Your task to perform on an android device: Show me recent news Image 0: 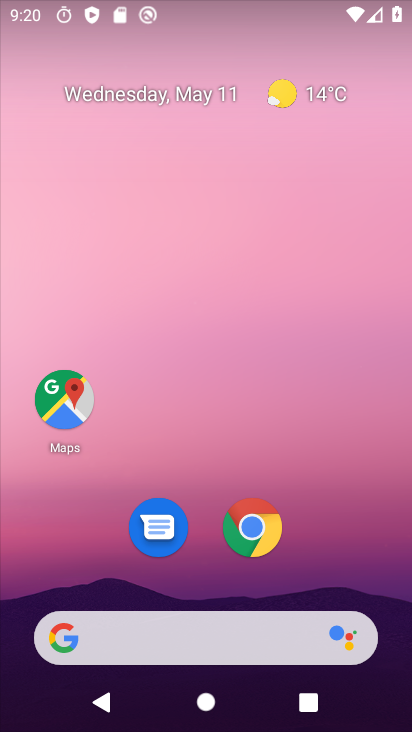
Step 0: drag from (234, 525) to (240, 211)
Your task to perform on an android device: Show me recent news Image 1: 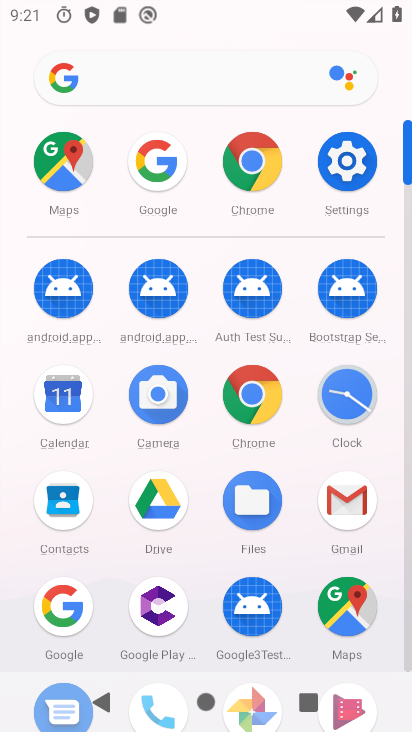
Step 1: drag from (187, 502) to (203, 252)
Your task to perform on an android device: Show me recent news Image 2: 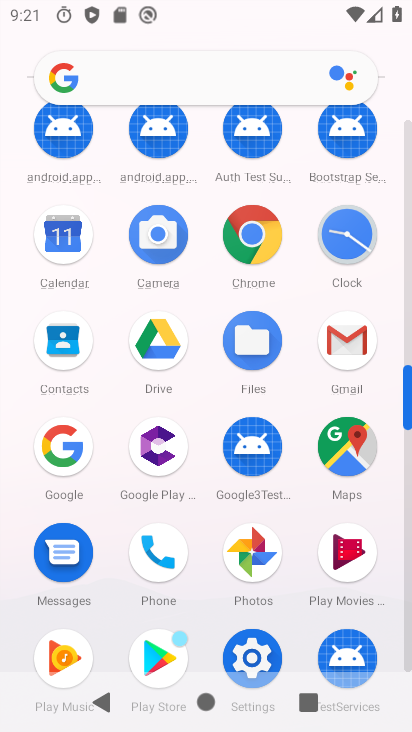
Step 2: click (76, 468)
Your task to perform on an android device: Show me recent news Image 3: 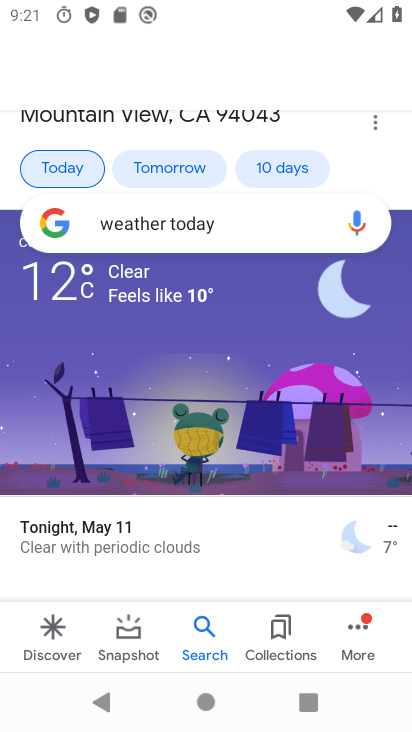
Step 3: drag from (172, 285) to (224, 679)
Your task to perform on an android device: Show me recent news Image 4: 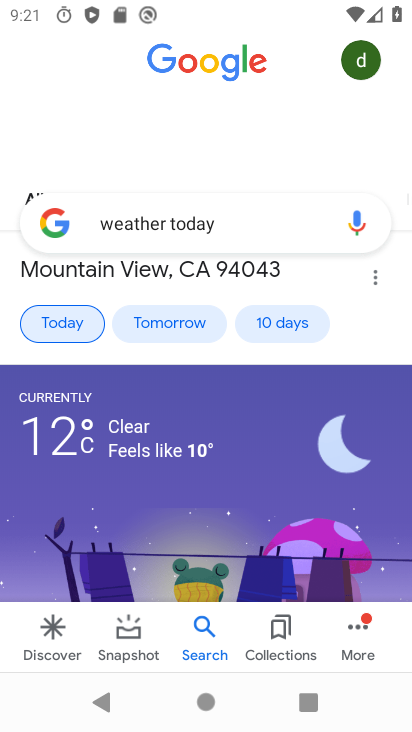
Step 4: click (232, 226)
Your task to perform on an android device: Show me recent news Image 5: 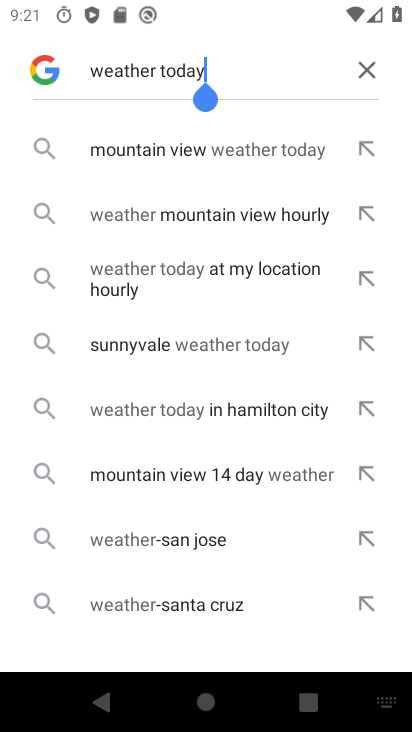
Step 5: click (367, 77)
Your task to perform on an android device: Show me recent news Image 6: 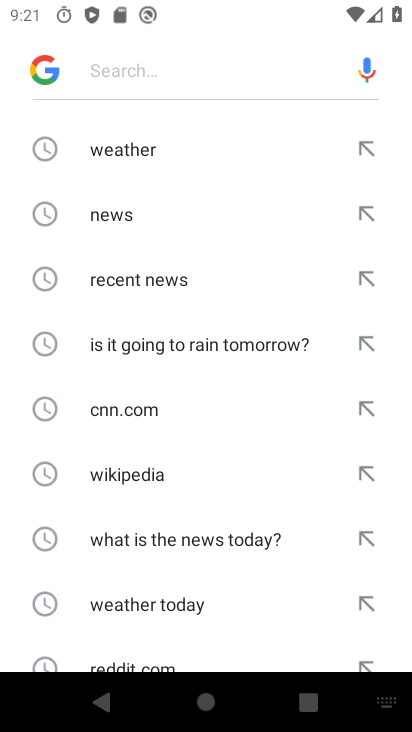
Step 6: click (174, 187)
Your task to perform on an android device: Show me recent news Image 7: 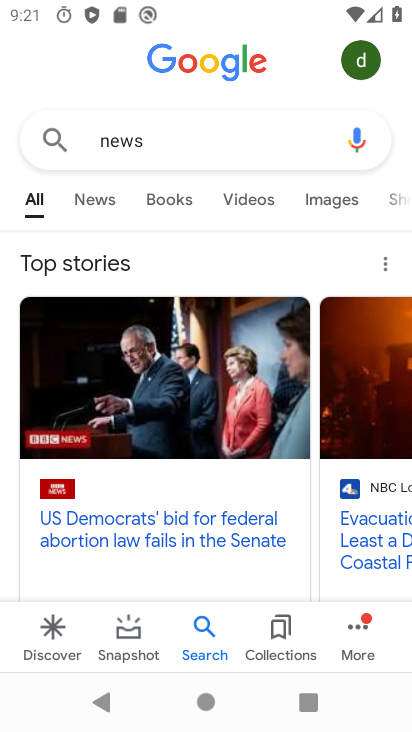
Step 7: click (97, 208)
Your task to perform on an android device: Show me recent news Image 8: 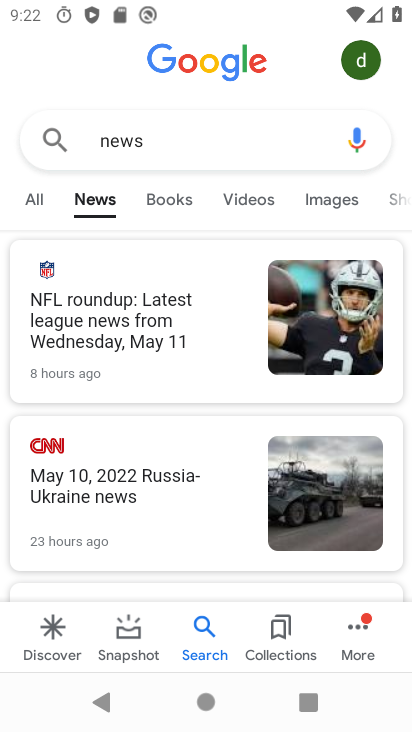
Step 8: task complete